Your task to perform on an android device: snooze an email in the gmail app Image 0: 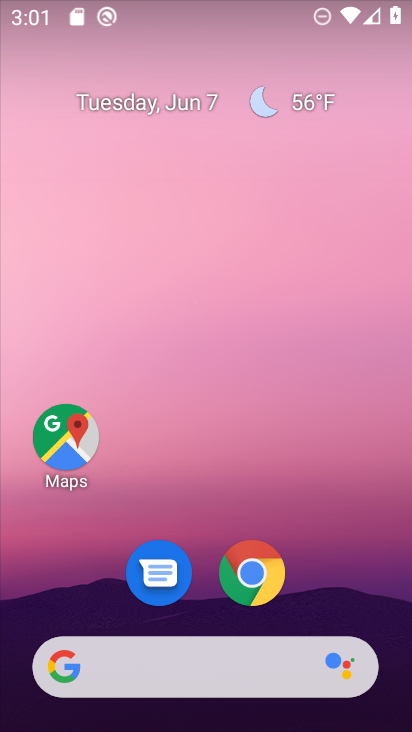
Step 0: drag from (311, 591) to (388, 5)
Your task to perform on an android device: snooze an email in the gmail app Image 1: 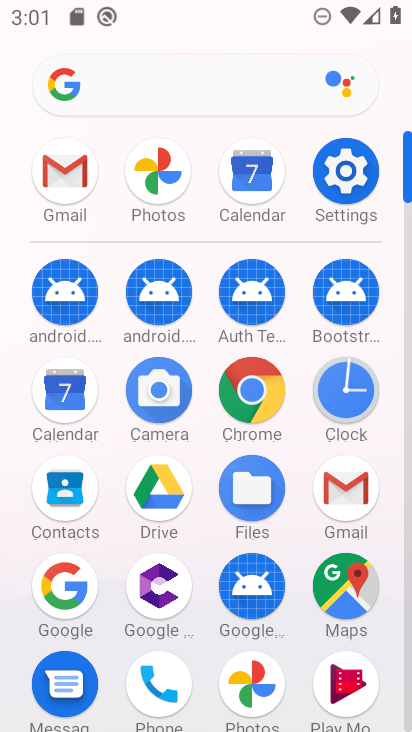
Step 1: click (349, 488)
Your task to perform on an android device: snooze an email in the gmail app Image 2: 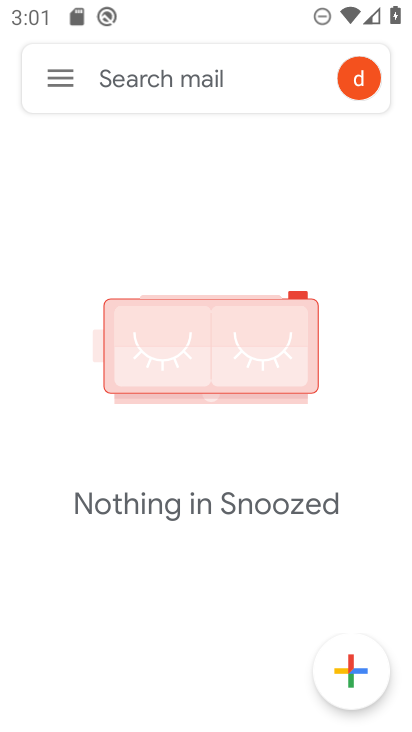
Step 2: click (51, 80)
Your task to perform on an android device: snooze an email in the gmail app Image 3: 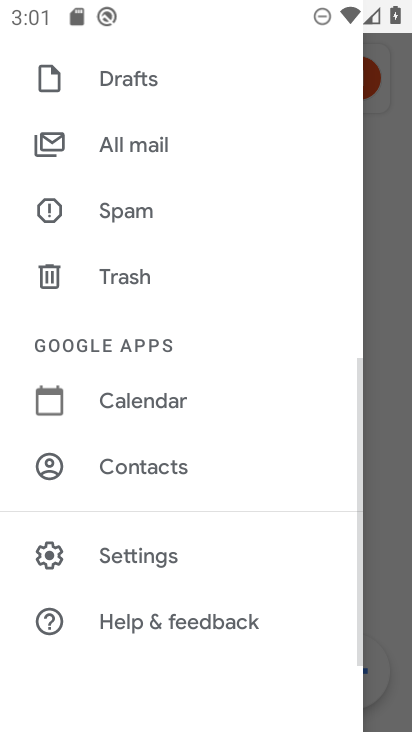
Step 3: drag from (183, 189) to (237, 587)
Your task to perform on an android device: snooze an email in the gmail app Image 4: 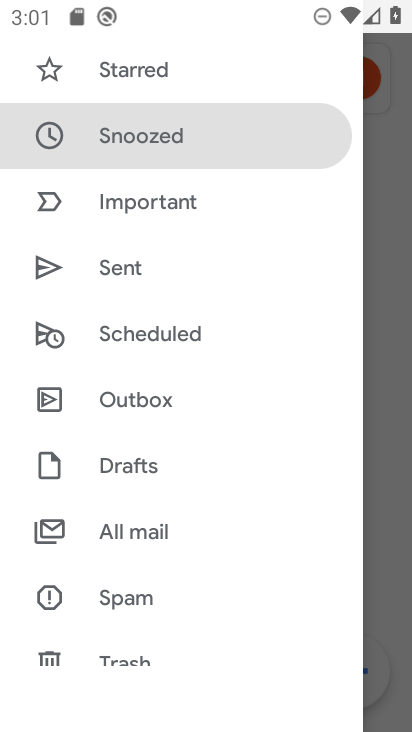
Step 4: click (161, 527)
Your task to perform on an android device: snooze an email in the gmail app Image 5: 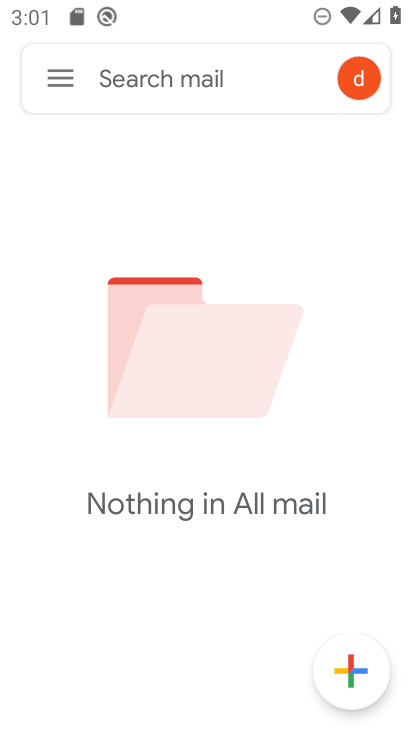
Step 5: task complete